Your task to perform on an android device: Open the calendar and show me this week's events? Image 0: 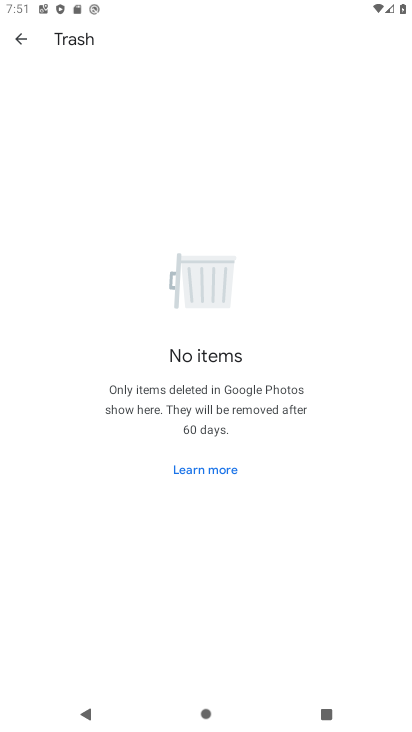
Step 0: press home button
Your task to perform on an android device: Open the calendar and show me this week's events? Image 1: 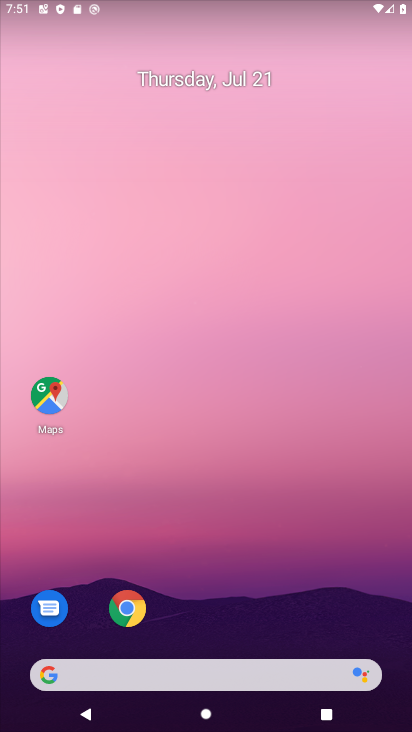
Step 1: drag from (213, 674) to (230, 265)
Your task to perform on an android device: Open the calendar and show me this week's events? Image 2: 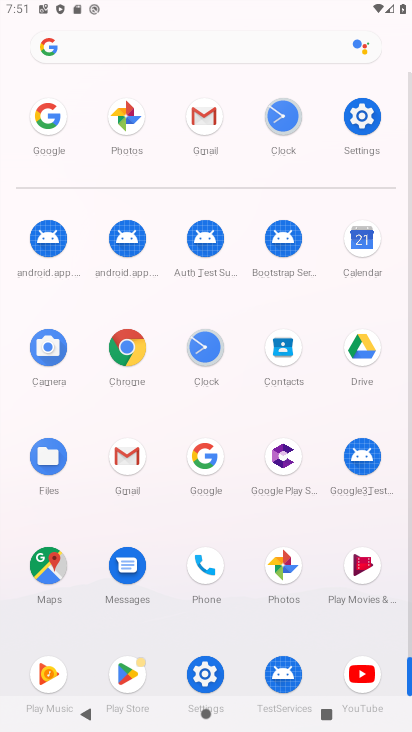
Step 2: click (364, 242)
Your task to perform on an android device: Open the calendar and show me this week's events? Image 3: 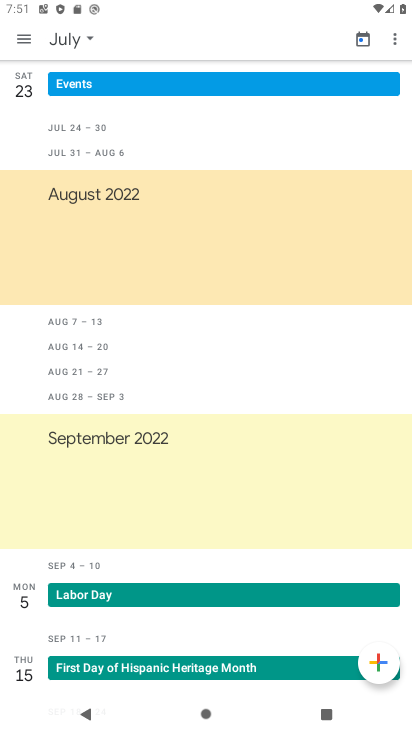
Step 3: click (361, 38)
Your task to perform on an android device: Open the calendar and show me this week's events? Image 4: 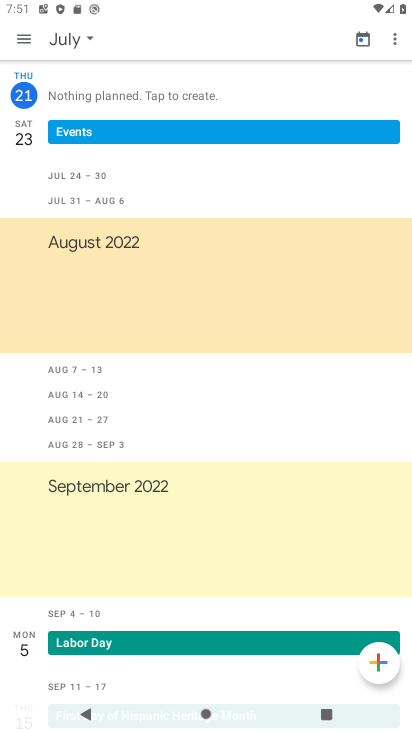
Step 4: click (86, 39)
Your task to perform on an android device: Open the calendar and show me this week's events? Image 5: 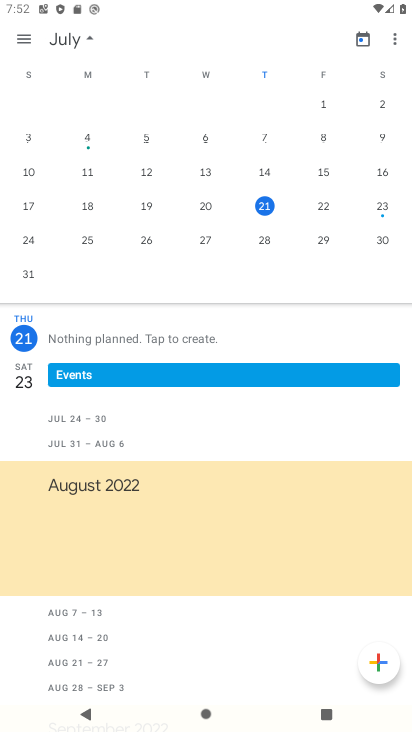
Step 5: click (388, 207)
Your task to perform on an android device: Open the calendar and show me this week's events? Image 6: 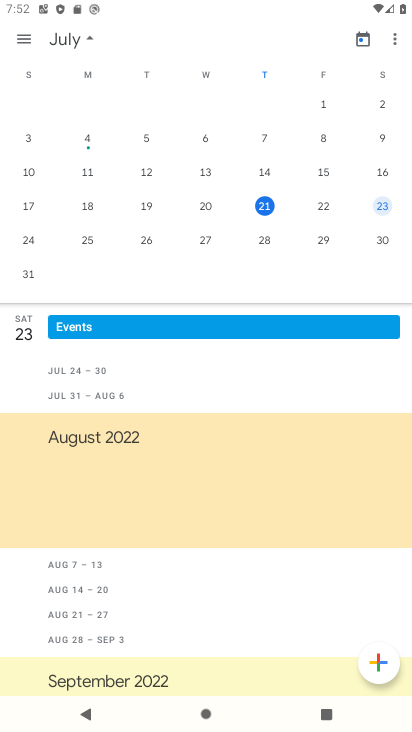
Step 6: task complete